Your task to perform on an android device: allow cookies in the chrome app Image 0: 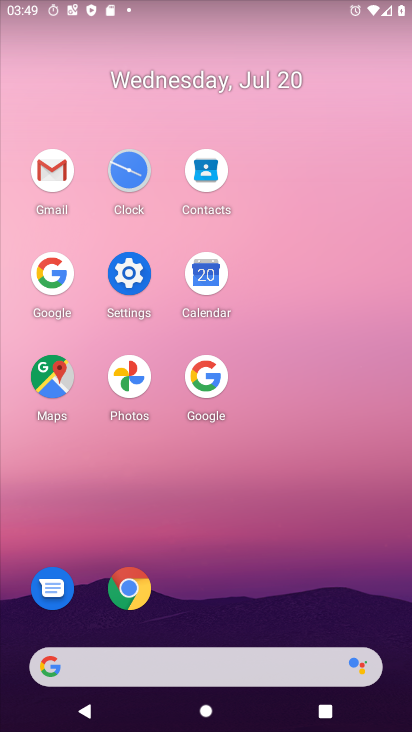
Step 0: click (136, 585)
Your task to perform on an android device: allow cookies in the chrome app Image 1: 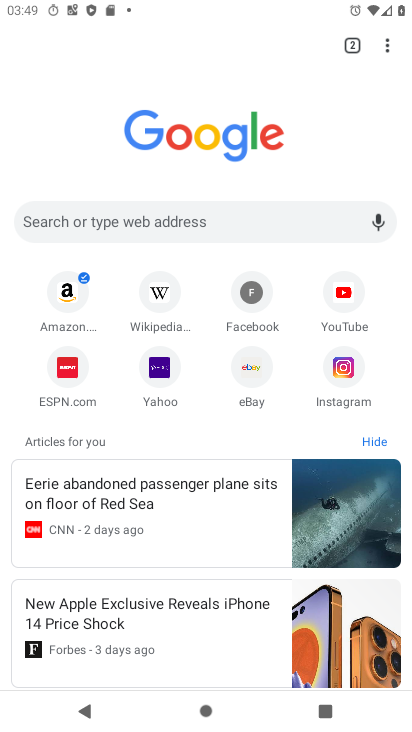
Step 1: click (381, 42)
Your task to perform on an android device: allow cookies in the chrome app Image 2: 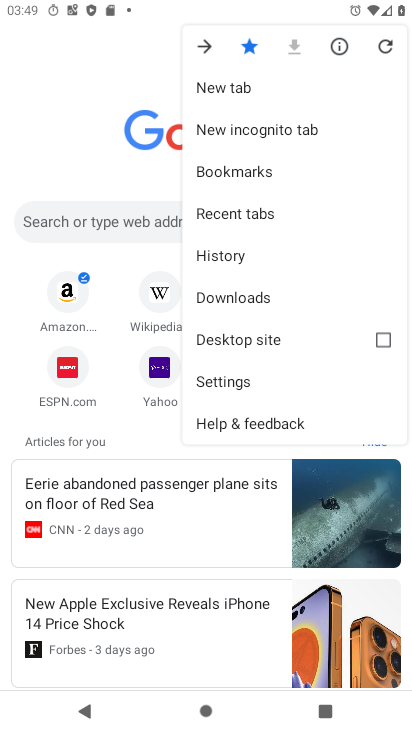
Step 2: click (273, 385)
Your task to perform on an android device: allow cookies in the chrome app Image 3: 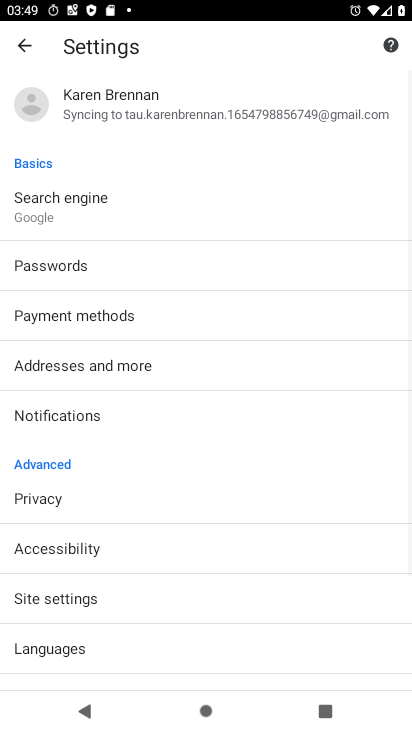
Step 3: drag from (100, 563) to (69, 319)
Your task to perform on an android device: allow cookies in the chrome app Image 4: 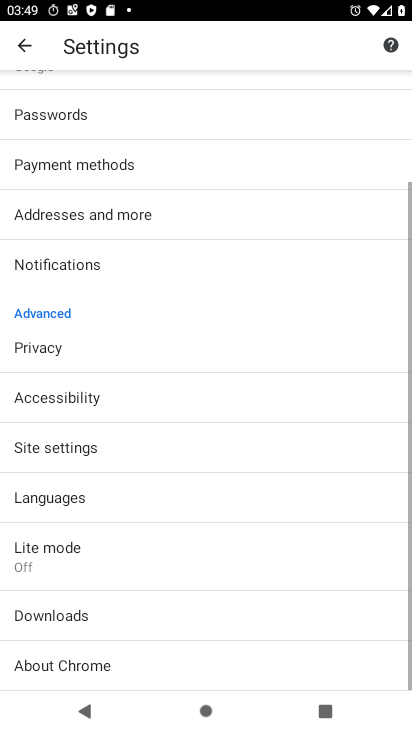
Step 4: click (94, 439)
Your task to perform on an android device: allow cookies in the chrome app Image 5: 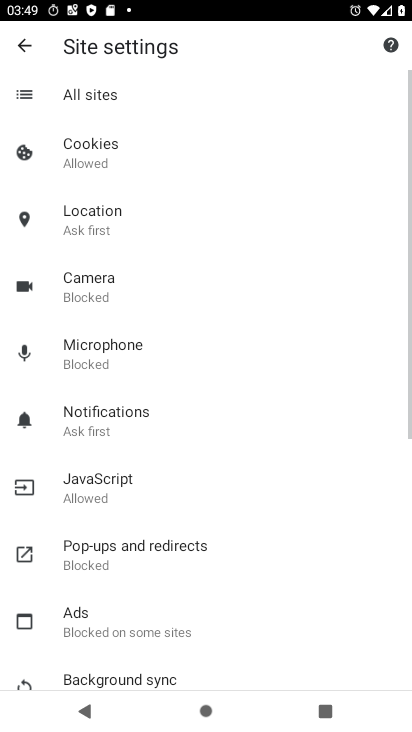
Step 5: click (173, 154)
Your task to perform on an android device: allow cookies in the chrome app Image 6: 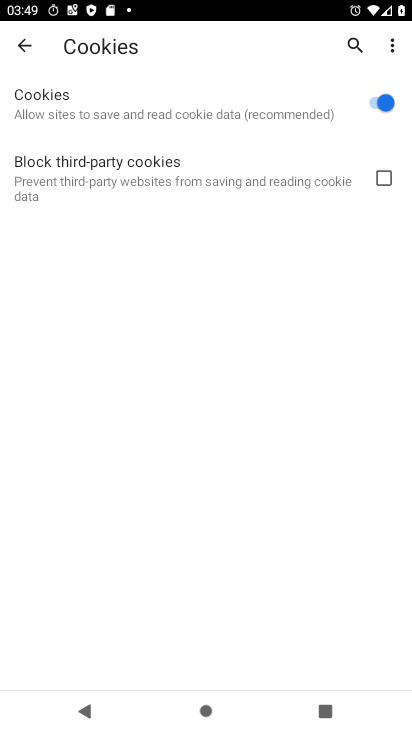
Step 6: task complete